Your task to perform on an android device: Go to Amazon Image 0: 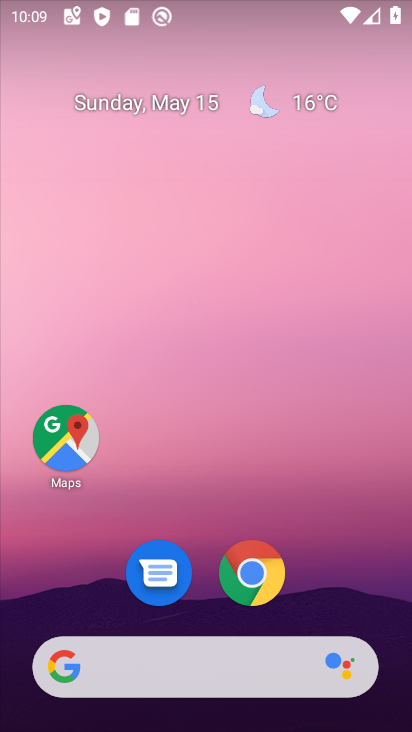
Step 0: click (257, 604)
Your task to perform on an android device: Go to Amazon Image 1: 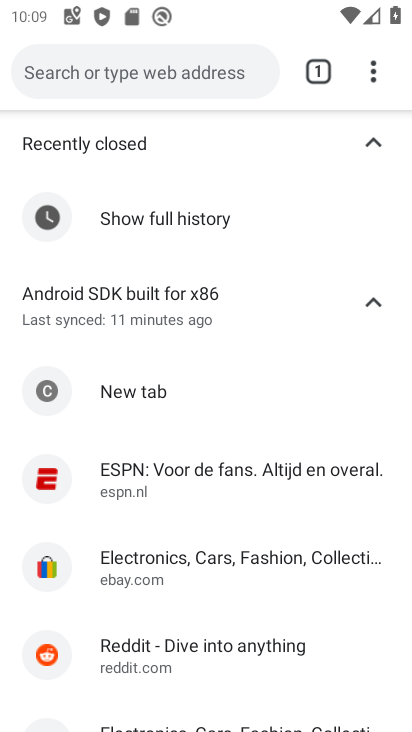
Step 1: click (237, 83)
Your task to perform on an android device: Go to Amazon Image 2: 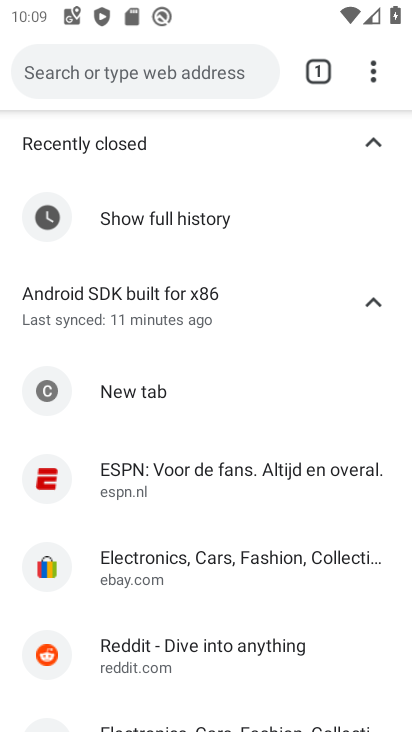
Step 2: click (70, 77)
Your task to perform on an android device: Go to Amazon Image 3: 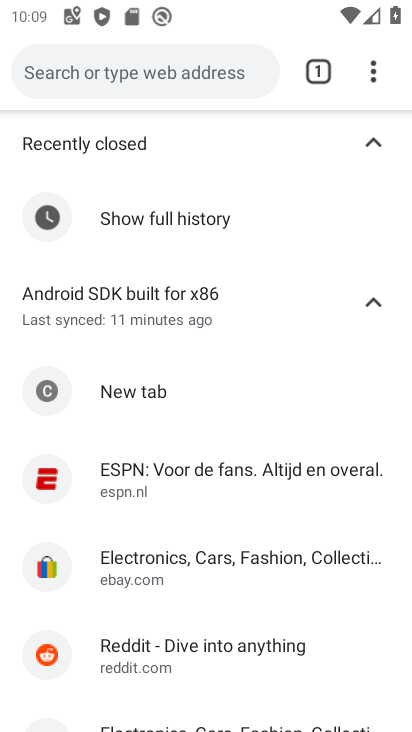
Step 3: click (70, 77)
Your task to perform on an android device: Go to Amazon Image 4: 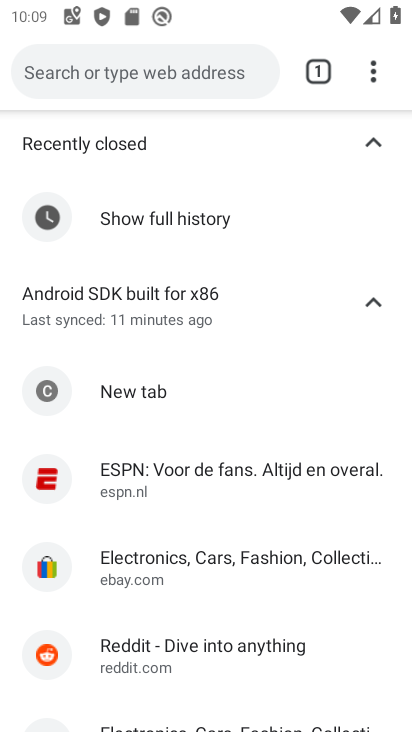
Step 4: click (70, 77)
Your task to perform on an android device: Go to Amazon Image 5: 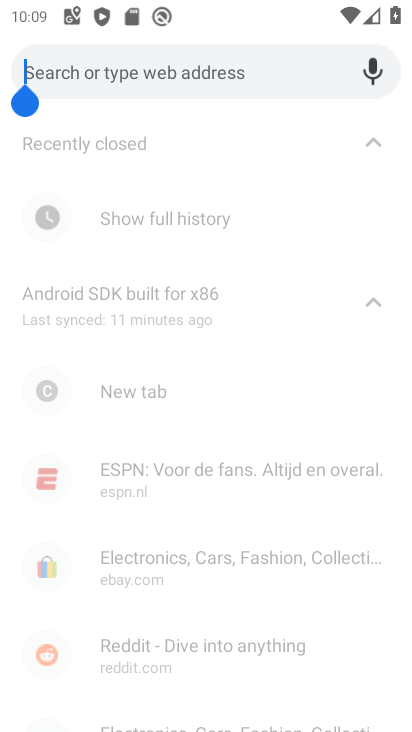
Step 5: click (70, 77)
Your task to perform on an android device: Go to Amazon Image 6: 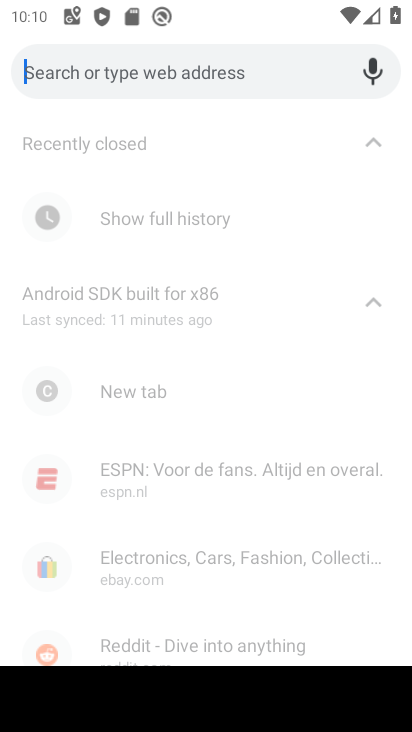
Step 6: type "amazon"
Your task to perform on an android device: Go to Amazon Image 7: 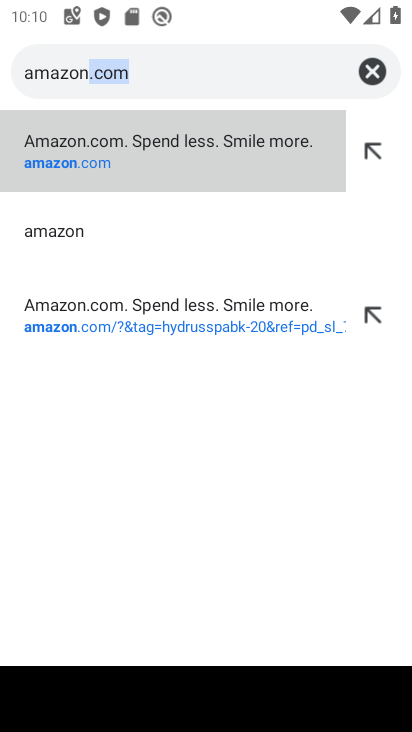
Step 7: click (119, 151)
Your task to perform on an android device: Go to Amazon Image 8: 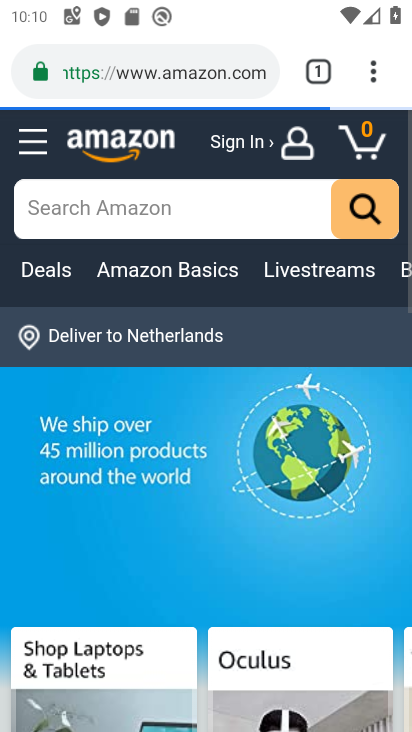
Step 8: task complete